Your task to perform on an android device: Open eBay Image 0: 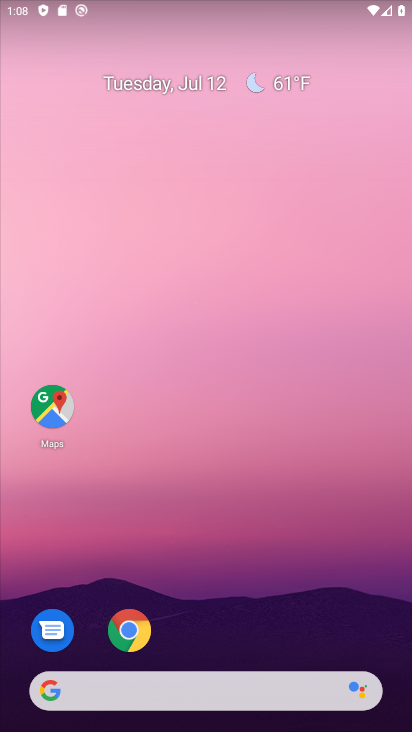
Step 0: click (144, 641)
Your task to perform on an android device: Open eBay Image 1: 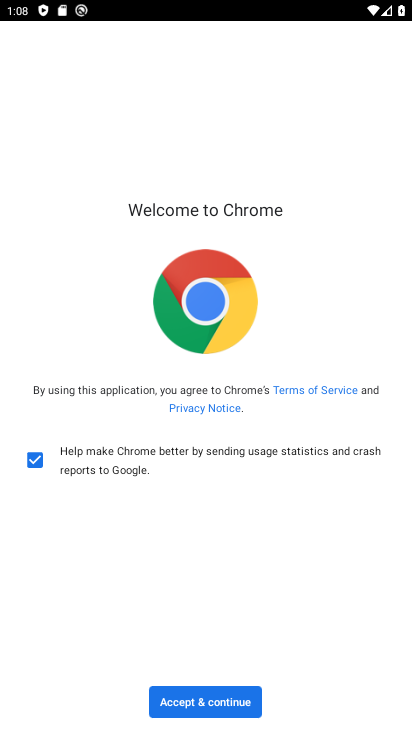
Step 1: click (173, 687)
Your task to perform on an android device: Open eBay Image 2: 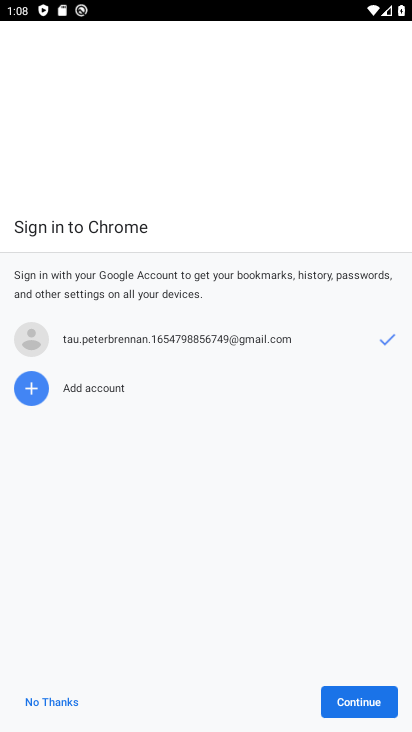
Step 2: click (356, 699)
Your task to perform on an android device: Open eBay Image 3: 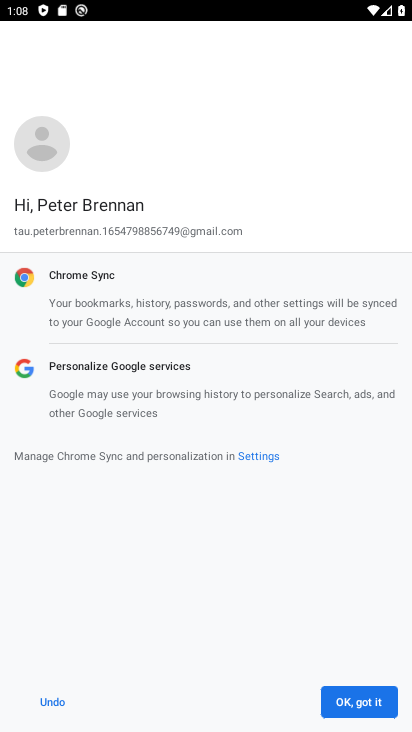
Step 3: click (365, 699)
Your task to perform on an android device: Open eBay Image 4: 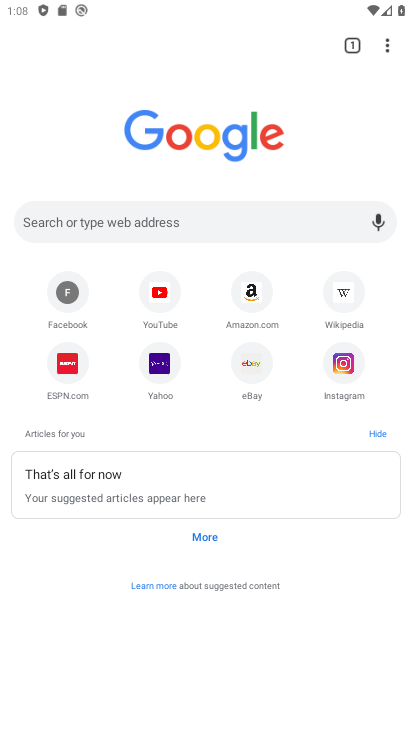
Step 4: click (242, 372)
Your task to perform on an android device: Open eBay Image 5: 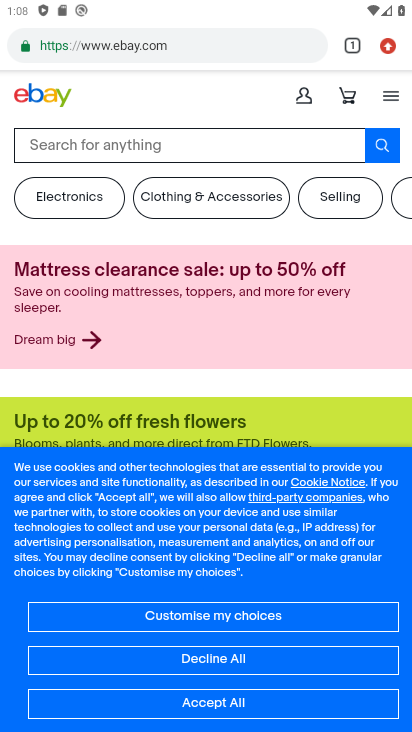
Step 5: task complete